Your task to perform on an android device: turn on showing notifications on the lock screen Image 0: 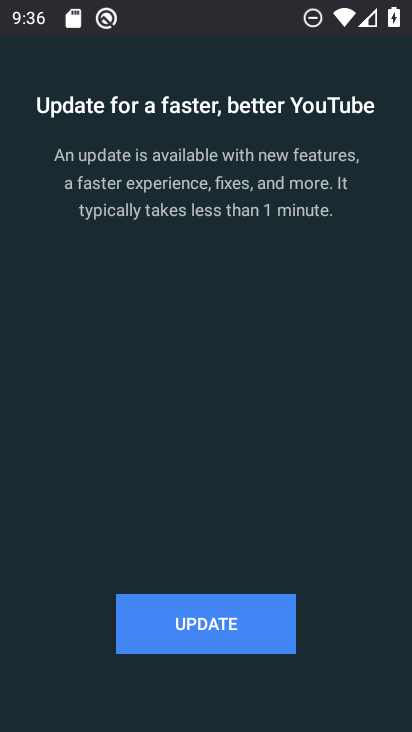
Step 0: press home button
Your task to perform on an android device: turn on showing notifications on the lock screen Image 1: 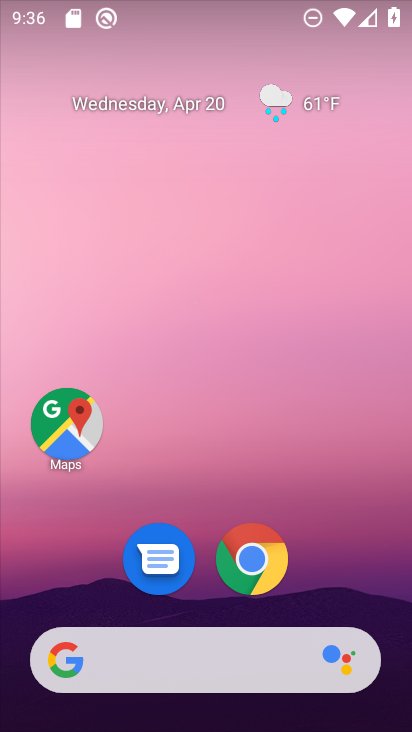
Step 1: drag from (390, 653) to (322, 244)
Your task to perform on an android device: turn on showing notifications on the lock screen Image 2: 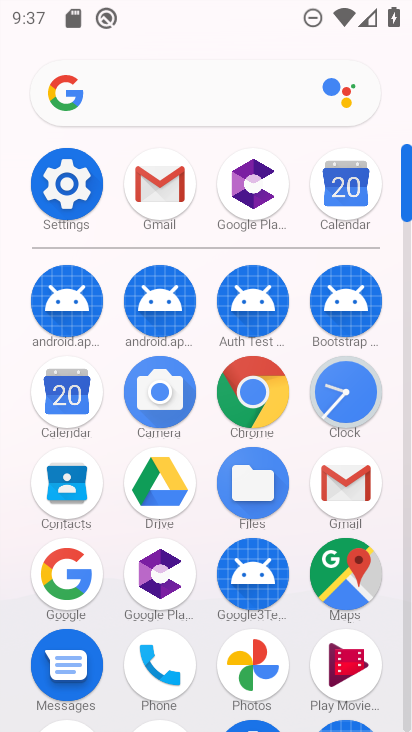
Step 2: click (407, 710)
Your task to perform on an android device: turn on showing notifications on the lock screen Image 3: 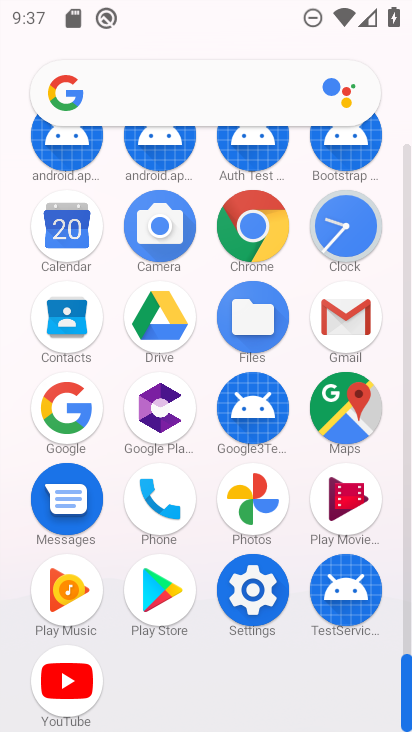
Step 3: click (255, 591)
Your task to perform on an android device: turn on showing notifications on the lock screen Image 4: 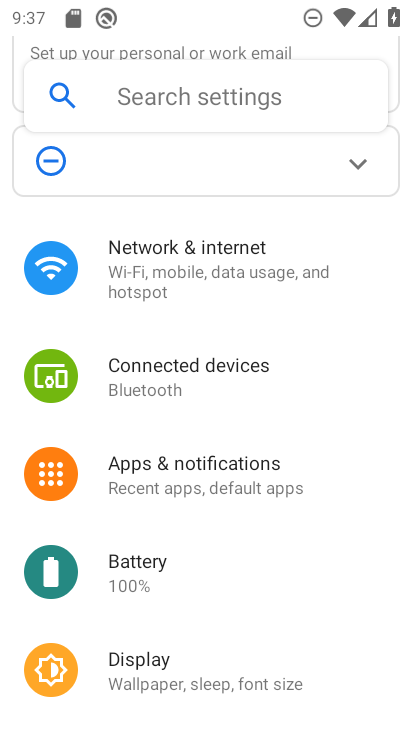
Step 4: click (173, 468)
Your task to perform on an android device: turn on showing notifications on the lock screen Image 5: 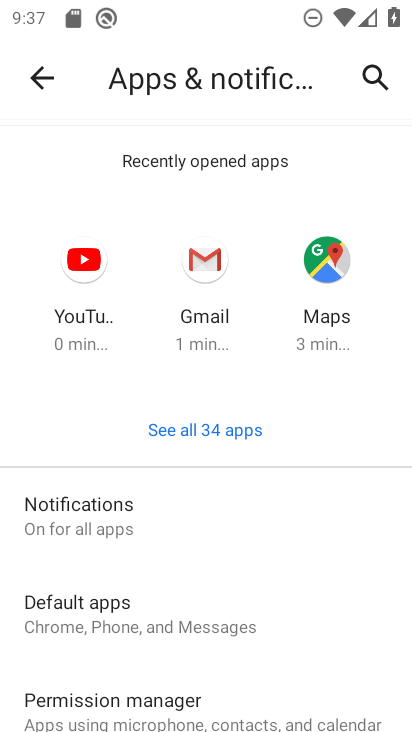
Step 5: click (83, 505)
Your task to perform on an android device: turn on showing notifications on the lock screen Image 6: 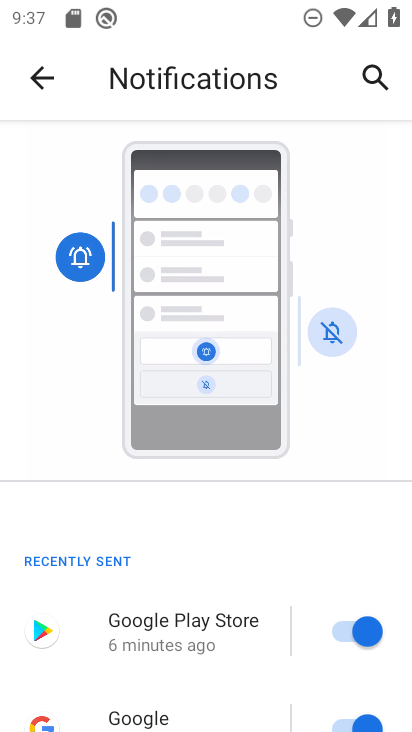
Step 6: drag from (292, 658) to (253, 299)
Your task to perform on an android device: turn on showing notifications on the lock screen Image 7: 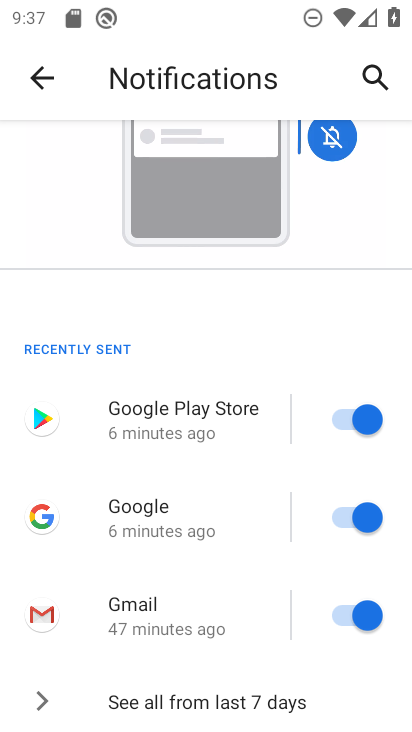
Step 7: drag from (279, 595) to (240, 370)
Your task to perform on an android device: turn on showing notifications on the lock screen Image 8: 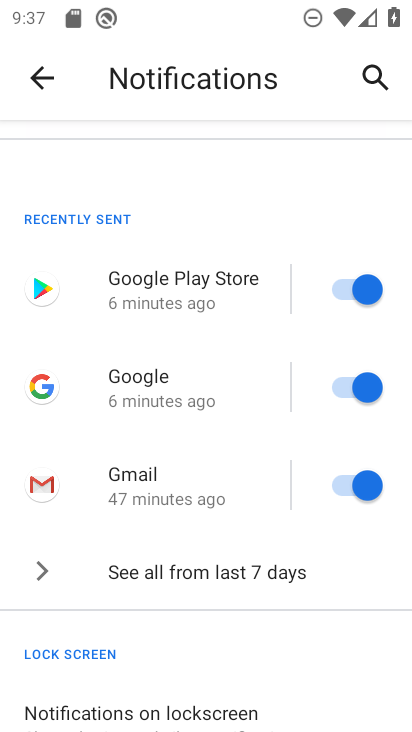
Step 8: drag from (268, 569) to (224, 255)
Your task to perform on an android device: turn on showing notifications on the lock screen Image 9: 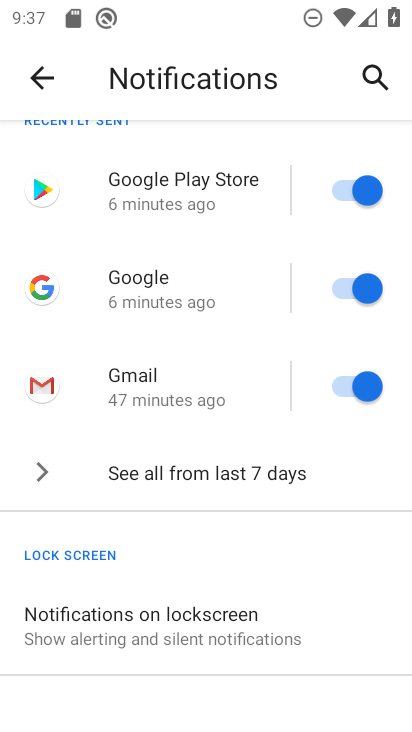
Step 9: drag from (258, 516) to (229, 383)
Your task to perform on an android device: turn on showing notifications on the lock screen Image 10: 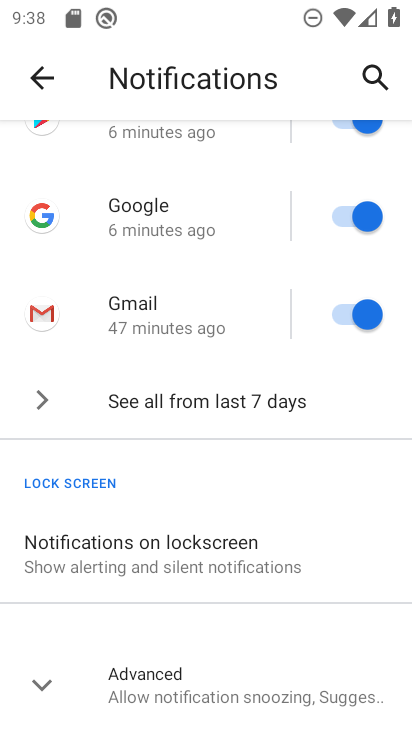
Step 10: click (150, 549)
Your task to perform on an android device: turn on showing notifications on the lock screen Image 11: 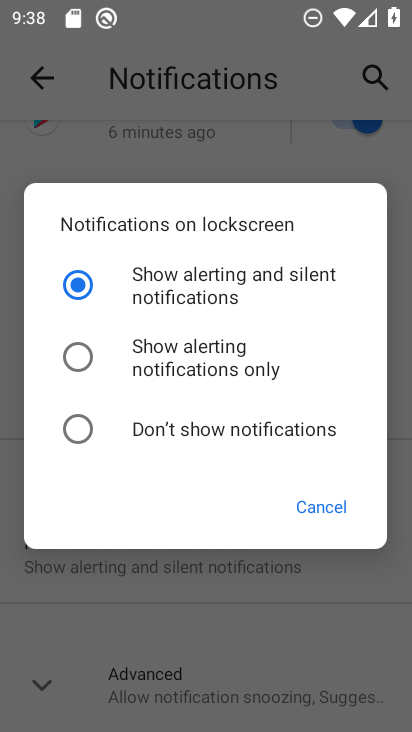
Step 11: task complete